Your task to perform on an android device: visit the assistant section in the google photos Image 0: 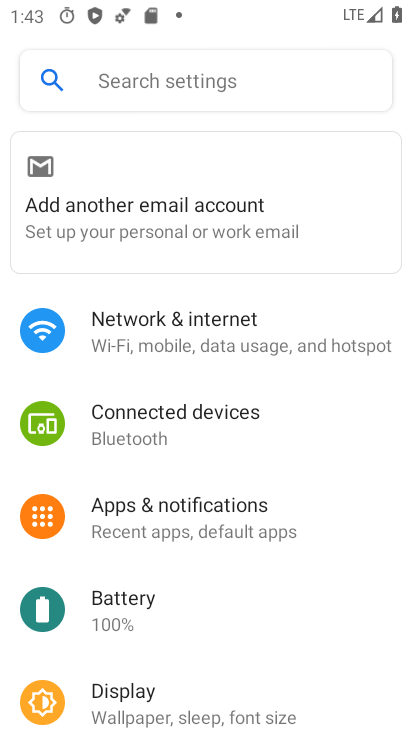
Step 0: press home button
Your task to perform on an android device: visit the assistant section in the google photos Image 1: 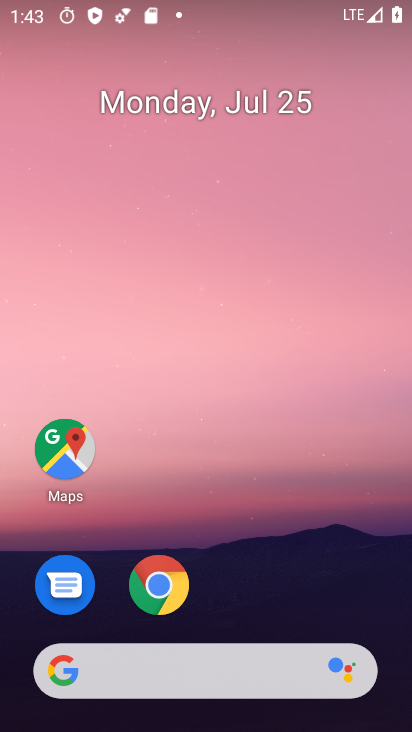
Step 1: drag from (208, 687) to (200, 272)
Your task to perform on an android device: visit the assistant section in the google photos Image 2: 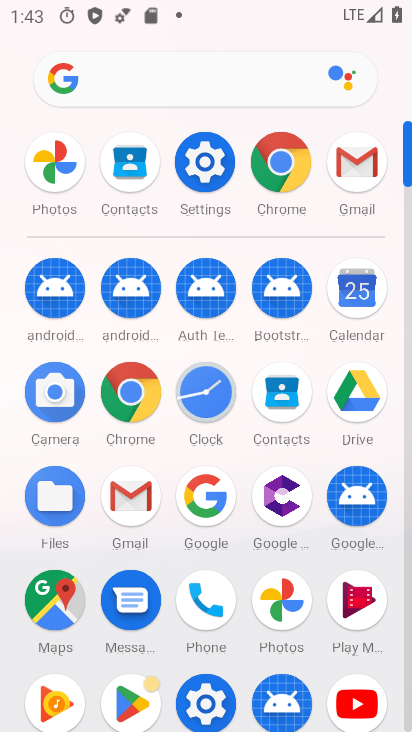
Step 2: click (290, 599)
Your task to perform on an android device: visit the assistant section in the google photos Image 3: 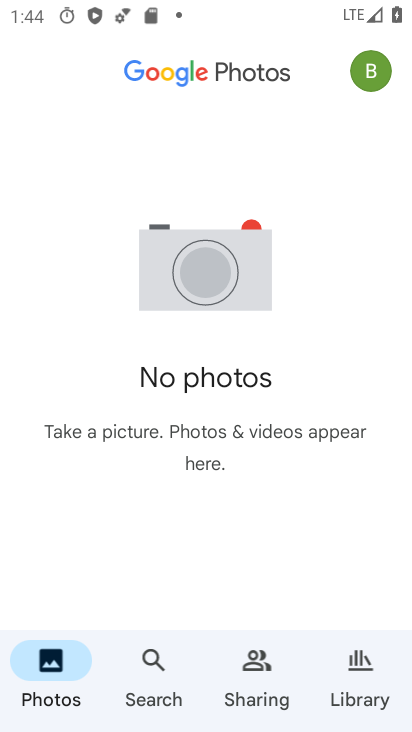
Step 3: task complete